Your task to perform on an android device: Do I have any events tomorrow? Image 0: 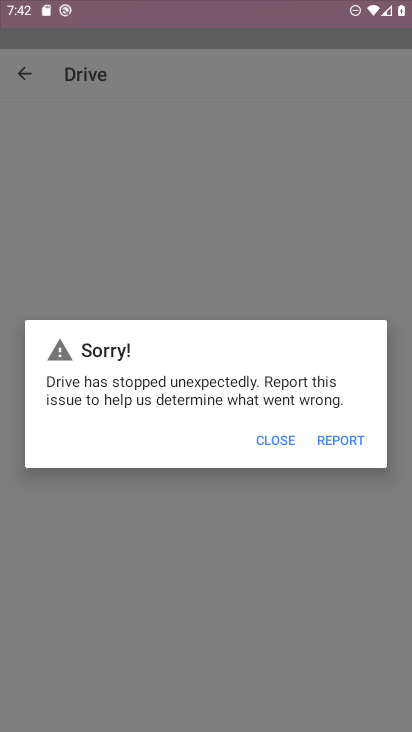
Step 0: click (148, 139)
Your task to perform on an android device: Do I have any events tomorrow? Image 1: 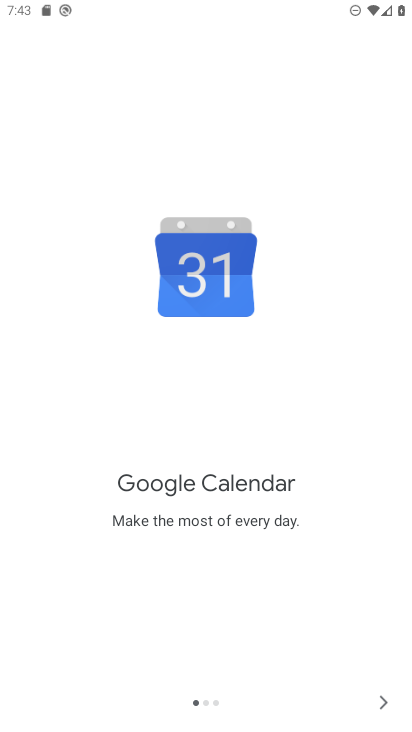
Step 1: press home button
Your task to perform on an android device: Do I have any events tomorrow? Image 2: 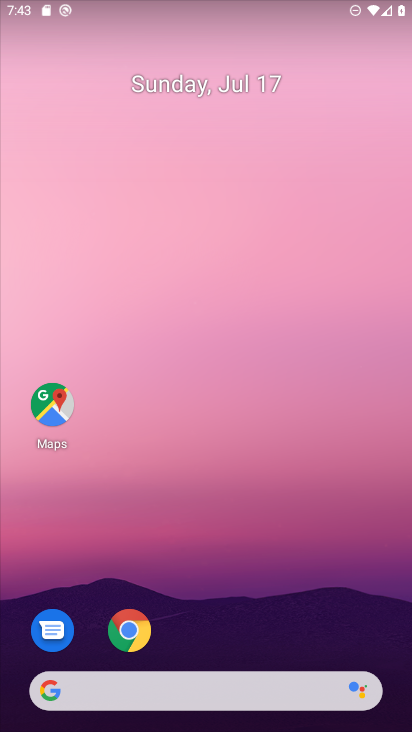
Step 2: drag from (228, 641) to (257, 99)
Your task to perform on an android device: Do I have any events tomorrow? Image 3: 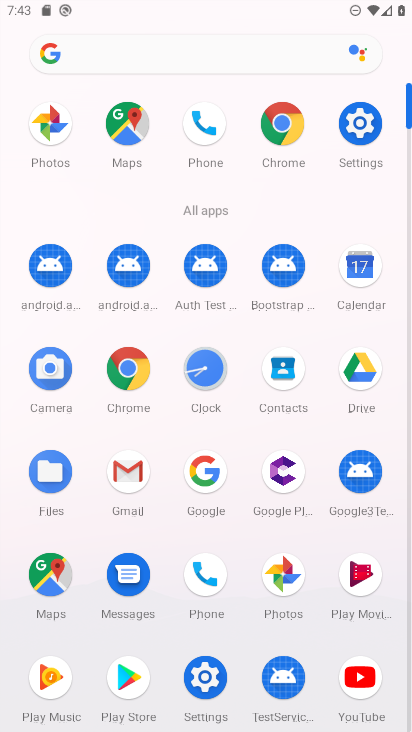
Step 3: click (355, 271)
Your task to perform on an android device: Do I have any events tomorrow? Image 4: 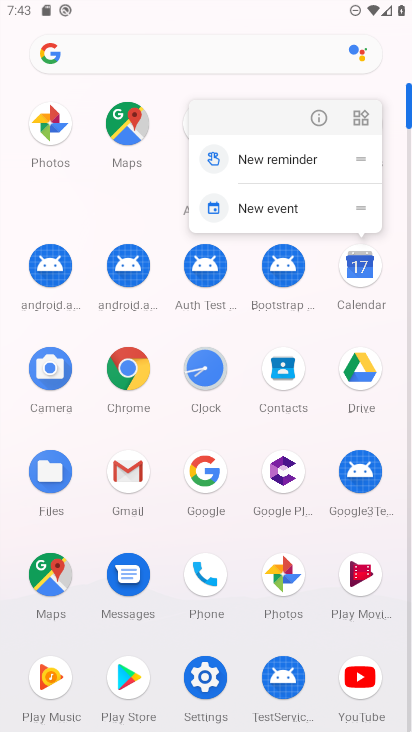
Step 4: click (359, 265)
Your task to perform on an android device: Do I have any events tomorrow? Image 5: 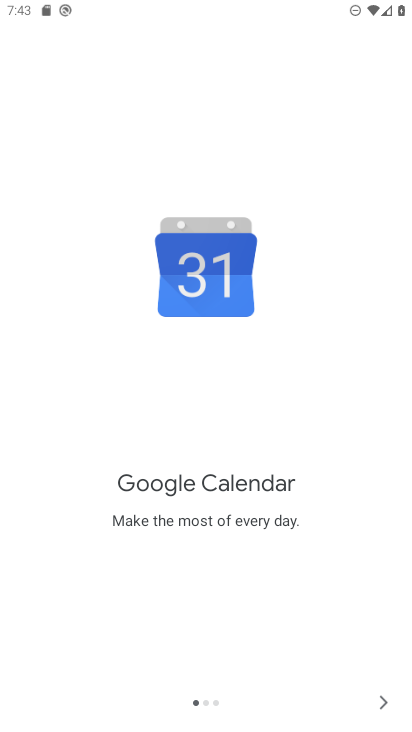
Step 5: click (383, 712)
Your task to perform on an android device: Do I have any events tomorrow? Image 6: 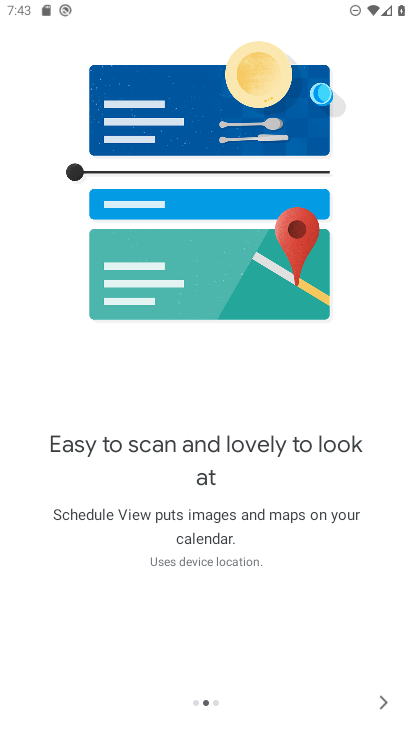
Step 6: click (383, 712)
Your task to perform on an android device: Do I have any events tomorrow? Image 7: 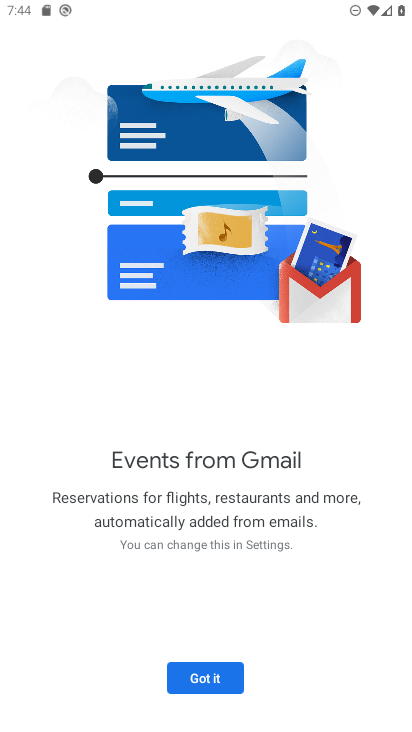
Step 7: click (185, 674)
Your task to perform on an android device: Do I have any events tomorrow? Image 8: 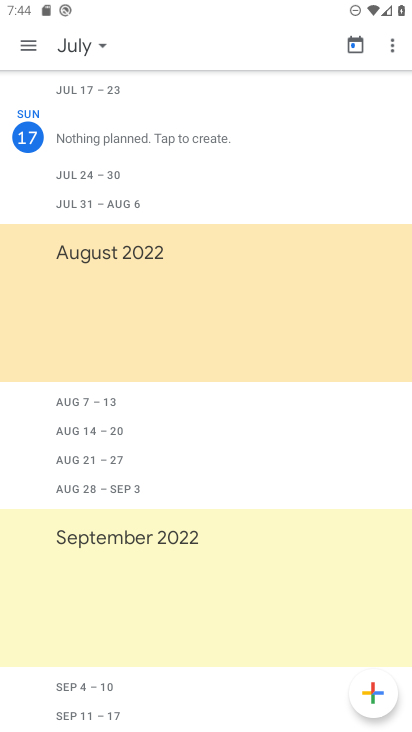
Step 8: drag from (245, 636) to (272, 111)
Your task to perform on an android device: Do I have any events tomorrow? Image 9: 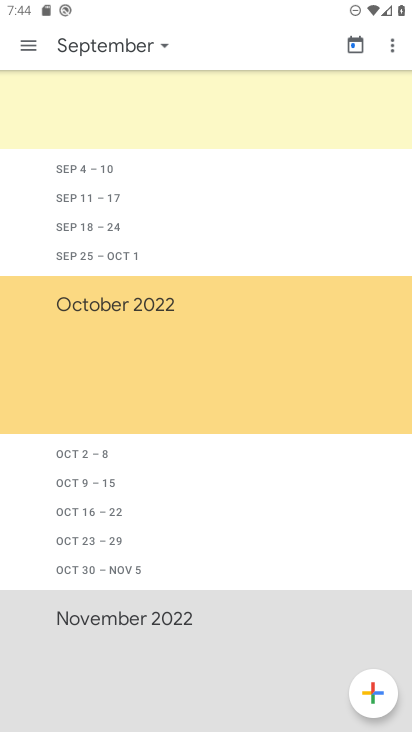
Step 9: click (24, 48)
Your task to perform on an android device: Do I have any events tomorrow? Image 10: 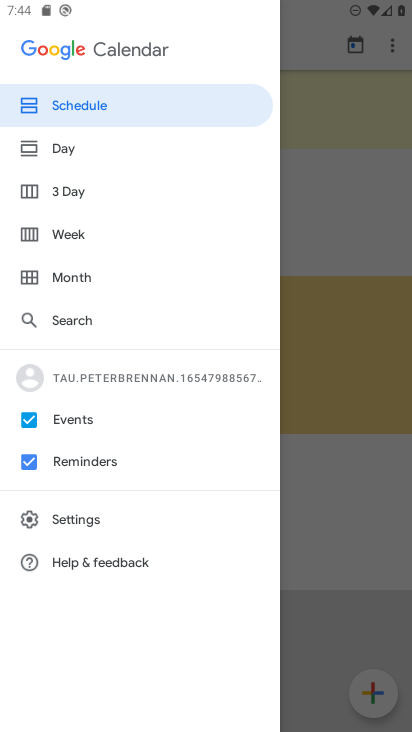
Step 10: click (83, 154)
Your task to perform on an android device: Do I have any events tomorrow? Image 11: 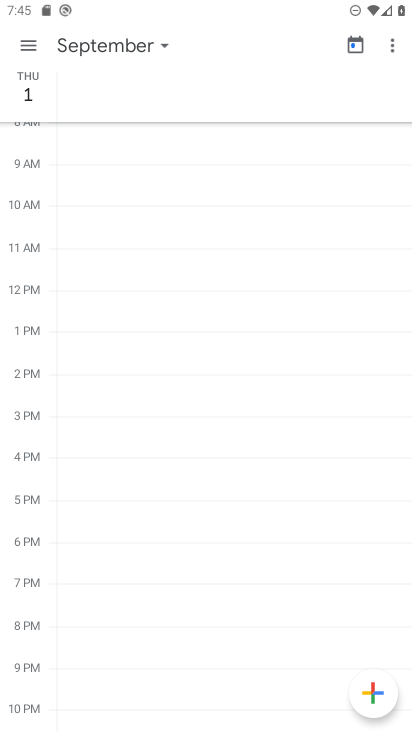
Step 11: click (19, 42)
Your task to perform on an android device: Do I have any events tomorrow? Image 12: 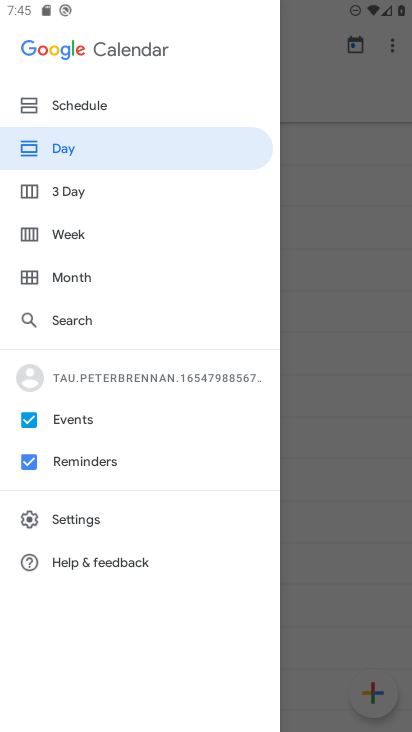
Step 12: click (94, 274)
Your task to perform on an android device: Do I have any events tomorrow? Image 13: 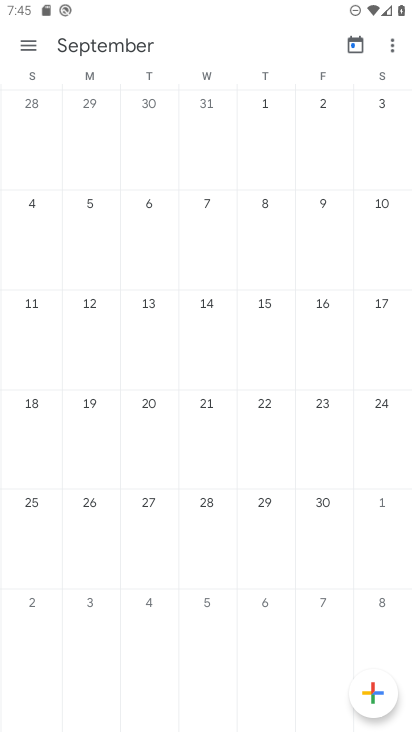
Step 13: click (36, 410)
Your task to perform on an android device: Do I have any events tomorrow? Image 14: 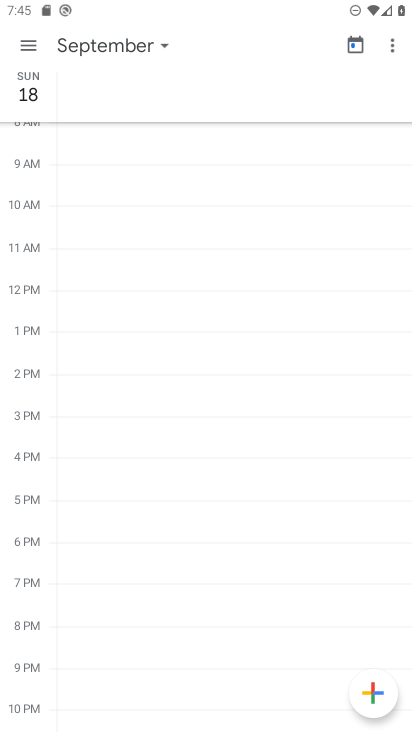
Step 14: task complete